Your task to perform on an android device: change notification settings in the gmail app Image 0: 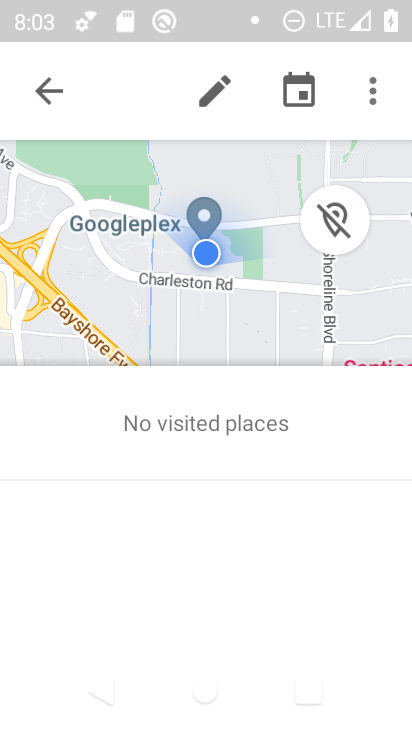
Step 0: press home button
Your task to perform on an android device: change notification settings in the gmail app Image 1: 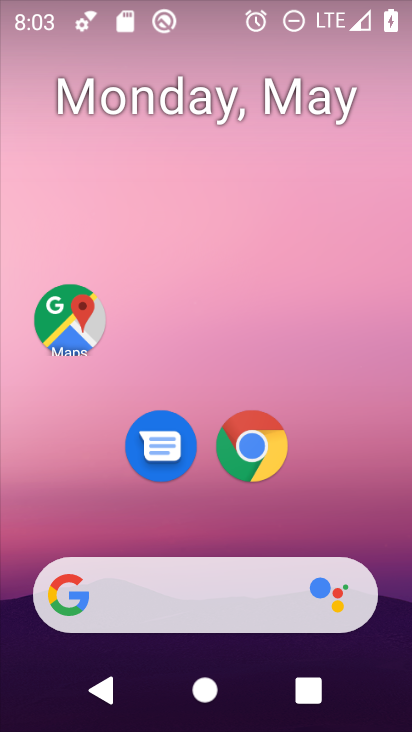
Step 1: drag from (283, 181) to (252, 55)
Your task to perform on an android device: change notification settings in the gmail app Image 2: 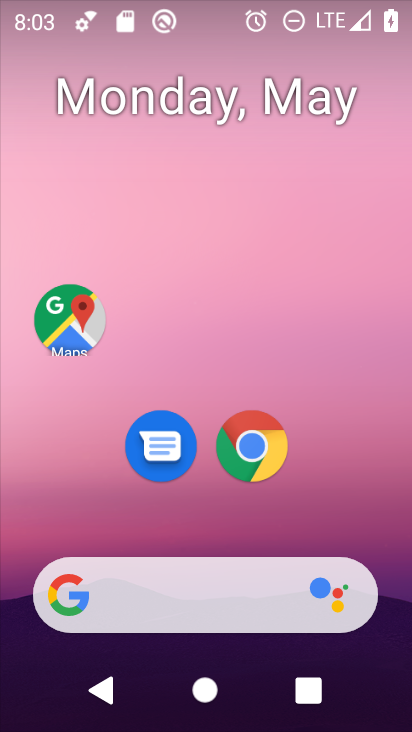
Step 2: drag from (197, 379) to (146, 59)
Your task to perform on an android device: change notification settings in the gmail app Image 3: 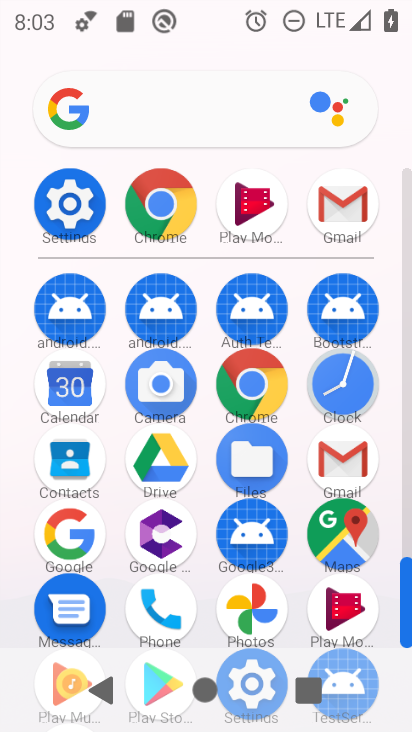
Step 3: click (344, 209)
Your task to perform on an android device: change notification settings in the gmail app Image 4: 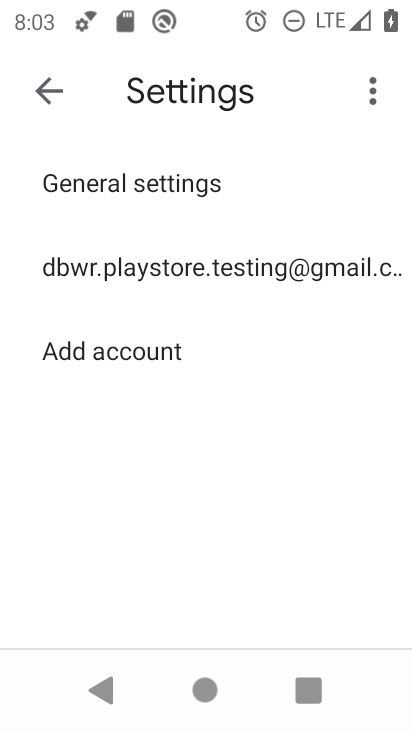
Step 4: click (142, 178)
Your task to perform on an android device: change notification settings in the gmail app Image 5: 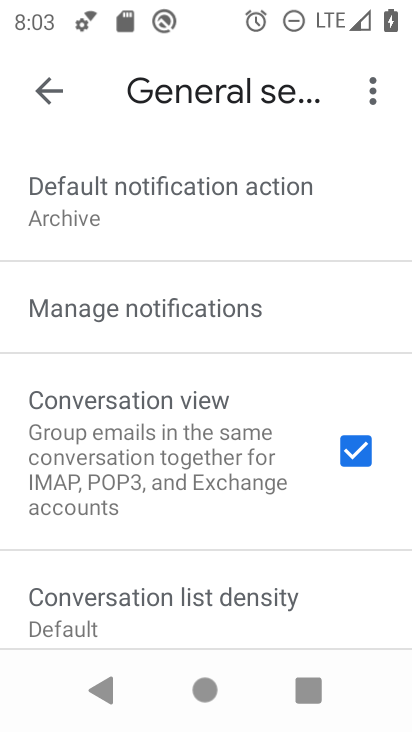
Step 5: click (159, 303)
Your task to perform on an android device: change notification settings in the gmail app Image 6: 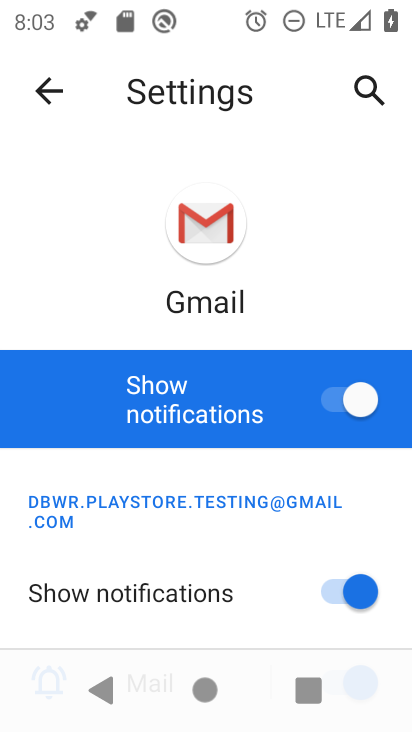
Step 6: click (345, 413)
Your task to perform on an android device: change notification settings in the gmail app Image 7: 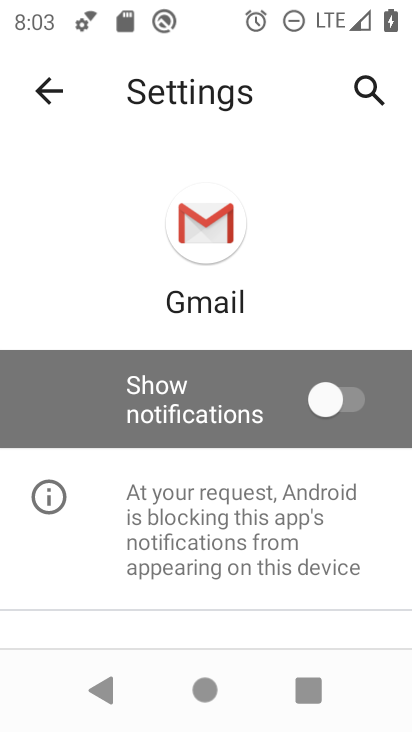
Step 7: task complete